Your task to perform on an android device: Open Google Chrome Image 0: 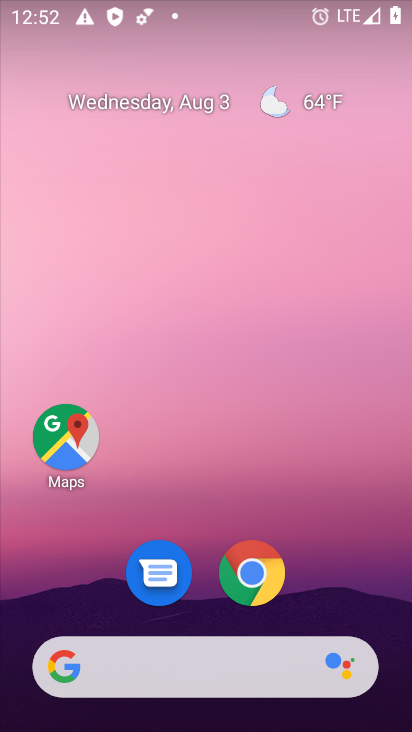
Step 0: drag from (168, 642) to (222, 160)
Your task to perform on an android device: Open Google Chrome Image 1: 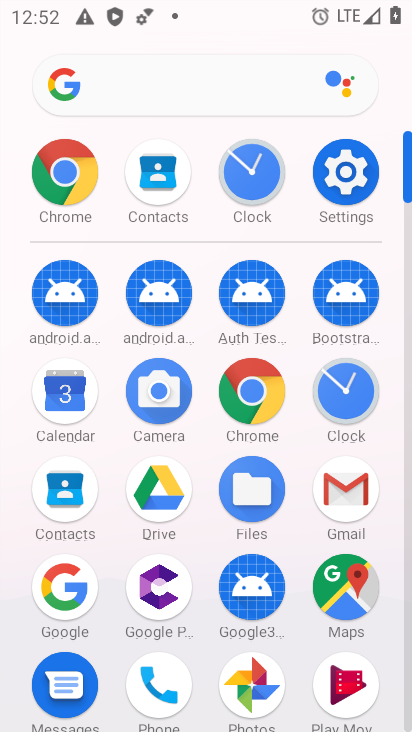
Step 1: click (263, 412)
Your task to perform on an android device: Open Google Chrome Image 2: 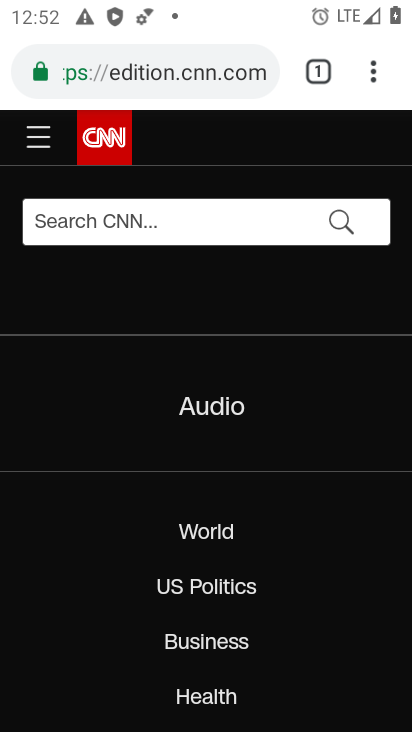
Step 2: task complete